Your task to perform on an android device: Open Google Maps Image 0: 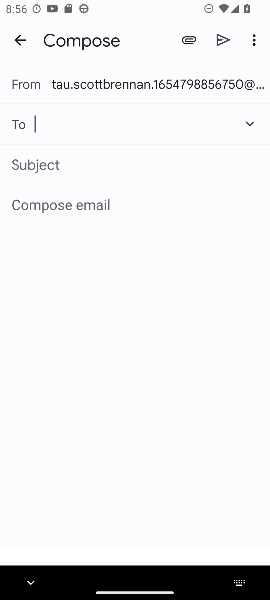
Step 0: press home button
Your task to perform on an android device: Open Google Maps Image 1: 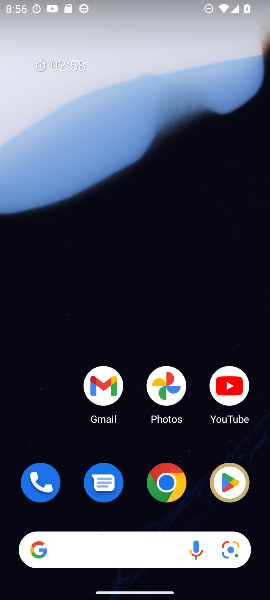
Step 1: drag from (133, 440) to (121, 57)
Your task to perform on an android device: Open Google Maps Image 2: 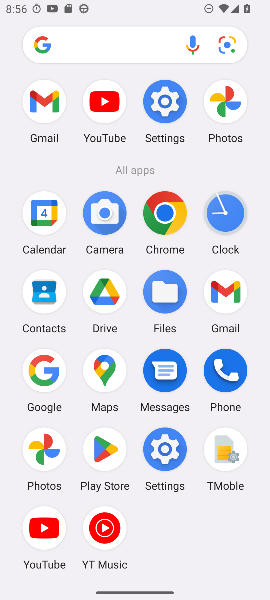
Step 2: click (102, 368)
Your task to perform on an android device: Open Google Maps Image 3: 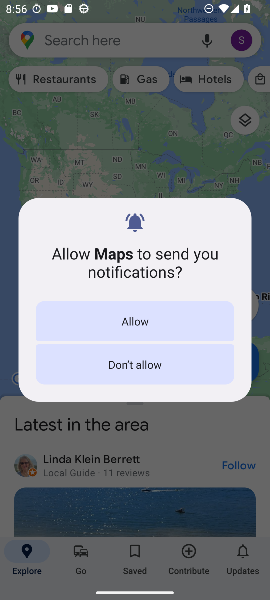
Step 3: click (140, 317)
Your task to perform on an android device: Open Google Maps Image 4: 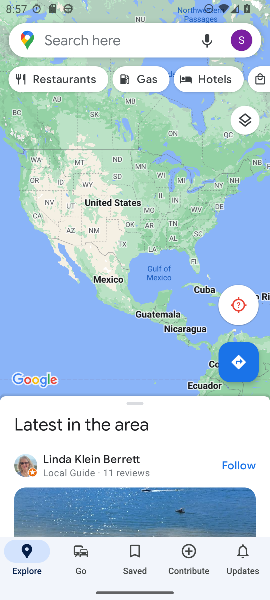
Step 4: task complete